Your task to perform on an android device: turn notification dots on Image 0: 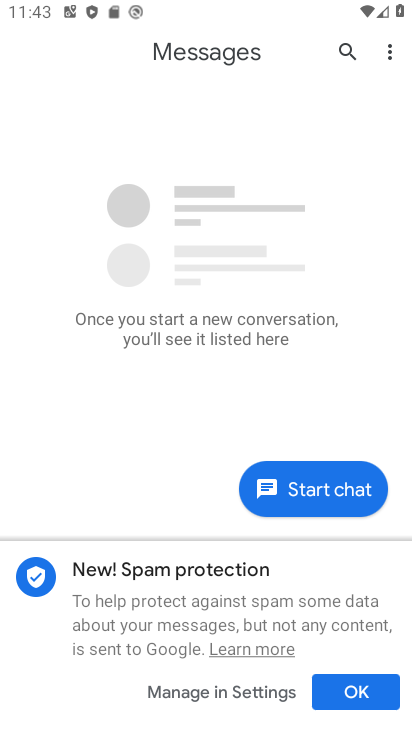
Step 0: press home button
Your task to perform on an android device: turn notification dots on Image 1: 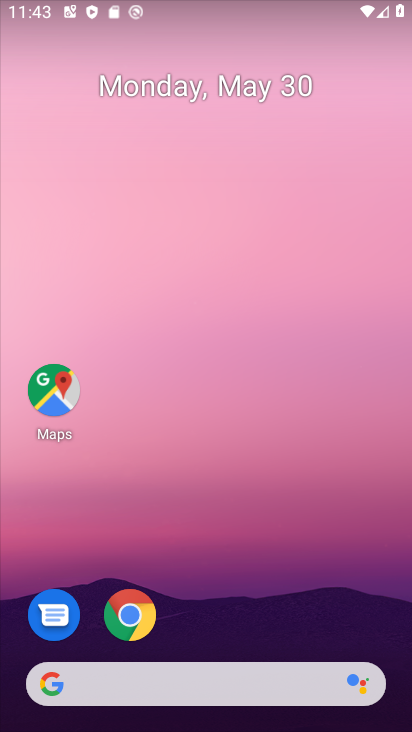
Step 1: drag from (376, 626) to (373, 171)
Your task to perform on an android device: turn notification dots on Image 2: 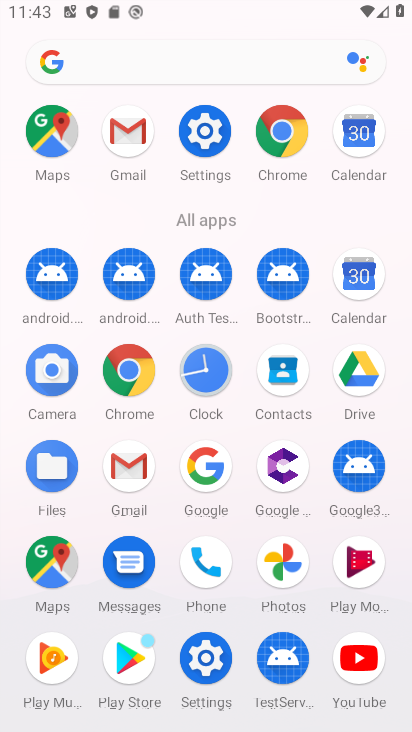
Step 2: click (212, 173)
Your task to perform on an android device: turn notification dots on Image 3: 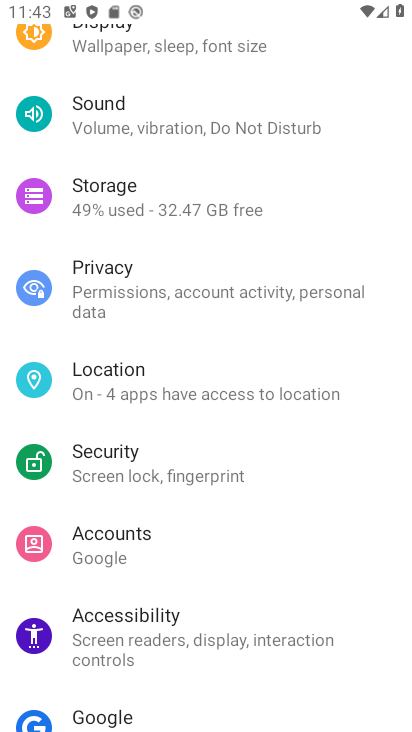
Step 3: drag from (360, 196) to (365, 311)
Your task to perform on an android device: turn notification dots on Image 4: 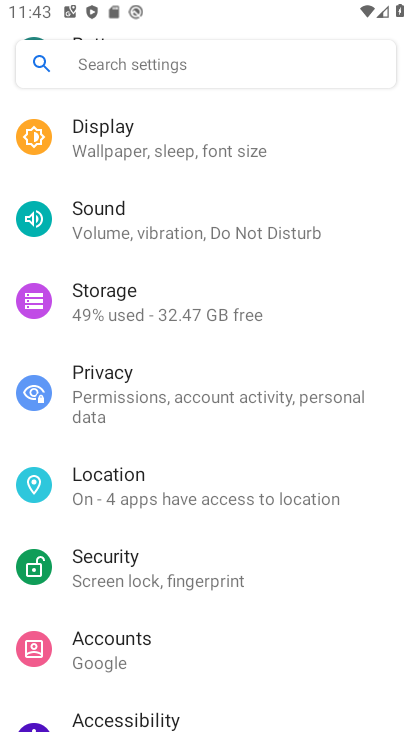
Step 4: drag from (374, 184) to (372, 293)
Your task to perform on an android device: turn notification dots on Image 5: 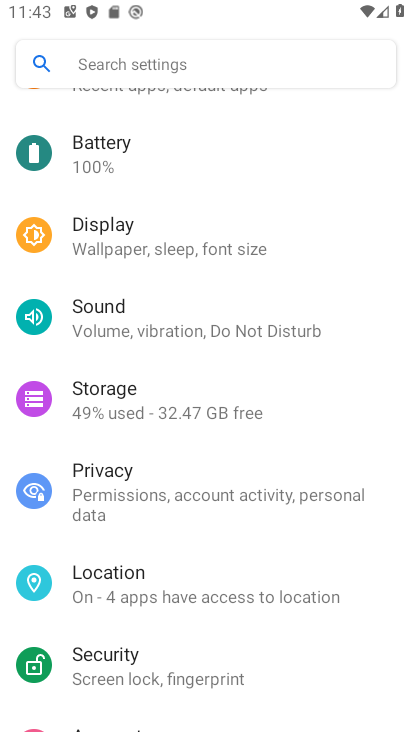
Step 5: drag from (364, 204) to (364, 326)
Your task to perform on an android device: turn notification dots on Image 6: 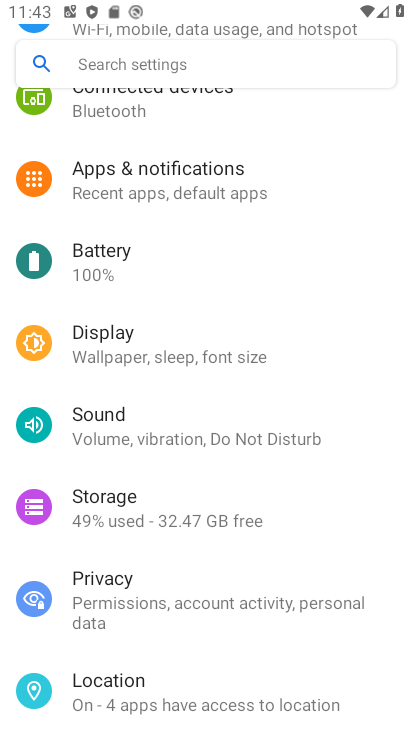
Step 6: drag from (361, 165) to (362, 335)
Your task to perform on an android device: turn notification dots on Image 7: 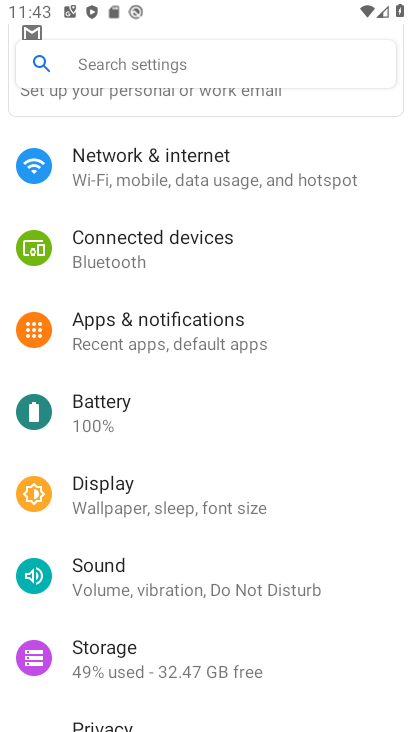
Step 7: drag from (373, 147) to (362, 394)
Your task to perform on an android device: turn notification dots on Image 8: 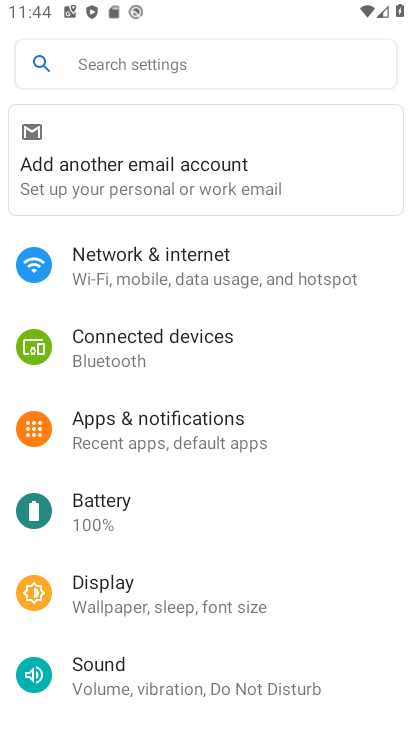
Step 8: click (260, 433)
Your task to perform on an android device: turn notification dots on Image 9: 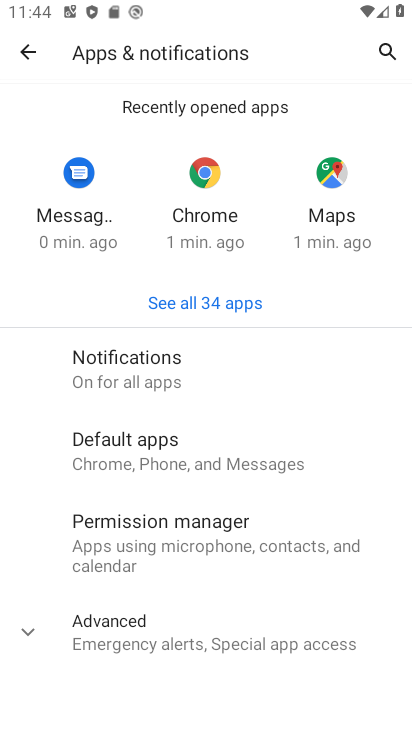
Step 9: click (192, 383)
Your task to perform on an android device: turn notification dots on Image 10: 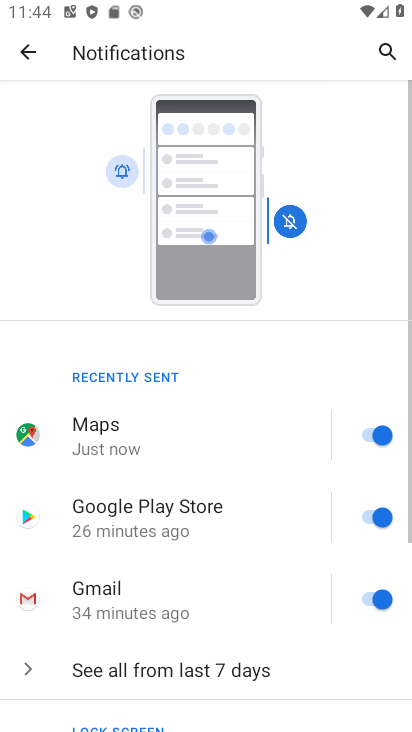
Step 10: drag from (276, 419) to (291, 318)
Your task to perform on an android device: turn notification dots on Image 11: 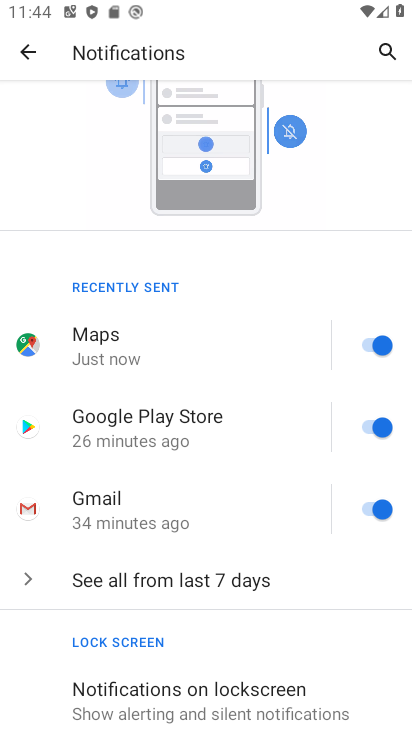
Step 11: drag from (280, 456) to (280, 352)
Your task to perform on an android device: turn notification dots on Image 12: 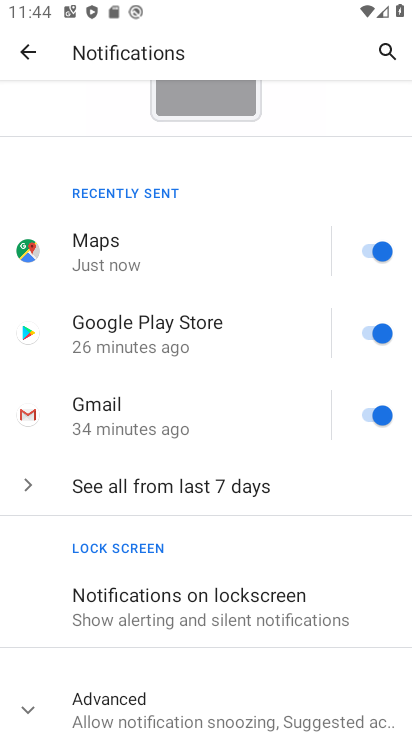
Step 12: drag from (294, 488) to (298, 380)
Your task to perform on an android device: turn notification dots on Image 13: 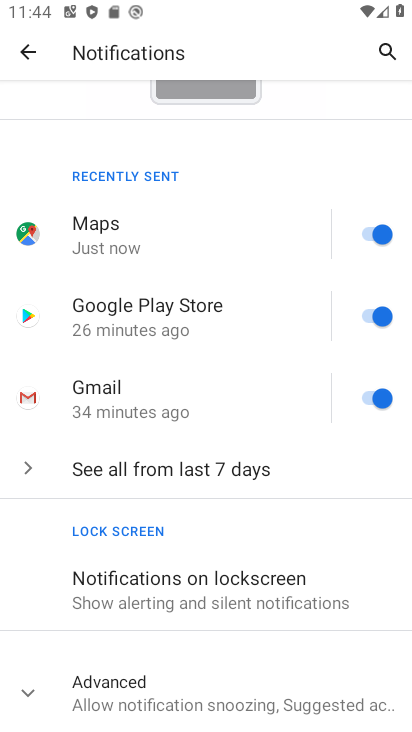
Step 13: click (210, 695)
Your task to perform on an android device: turn notification dots on Image 14: 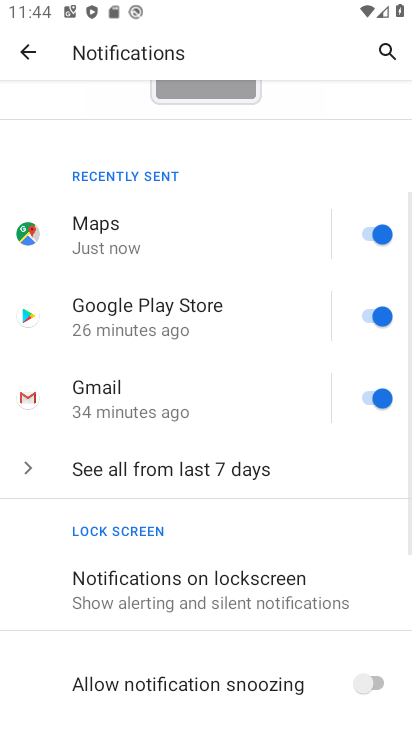
Step 14: task complete